Your task to perform on an android device: Open notification settings Image 0: 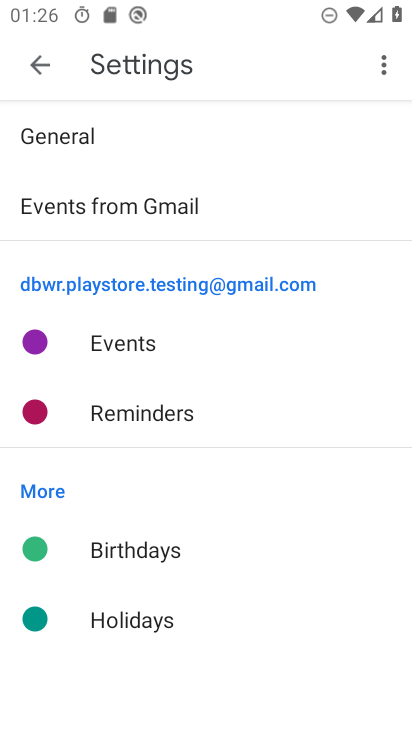
Step 0: press home button
Your task to perform on an android device: Open notification settings Image 1: 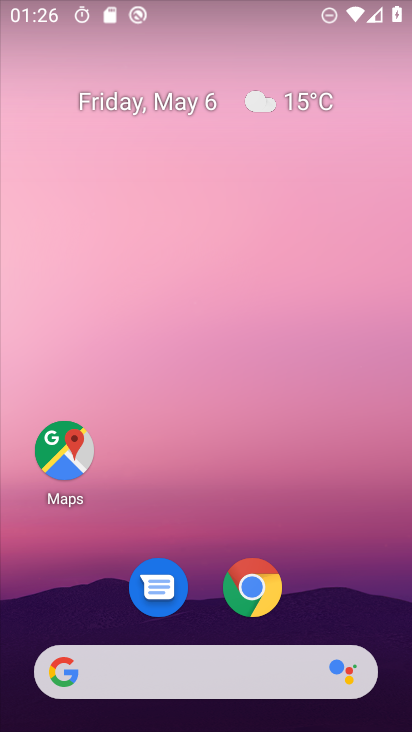
Step 1: drag from (378, 594) to (369, 337)
Your task to perform on an android device: Open notification settings Image 2: 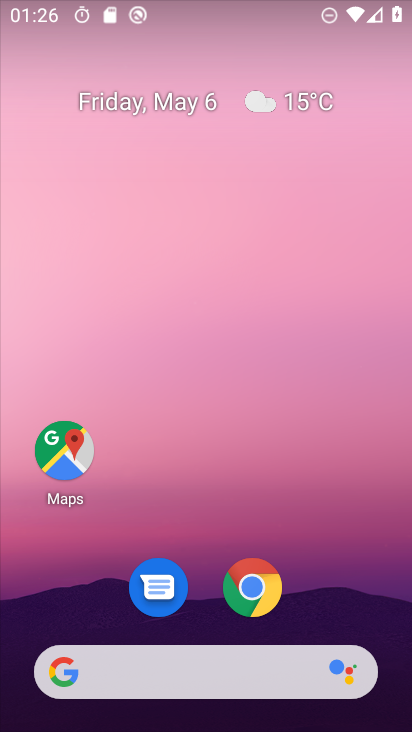
Step 2: drag from (386, 611) to (400, 362)
Your task to perform on an android device: Open notification settings Image 3: 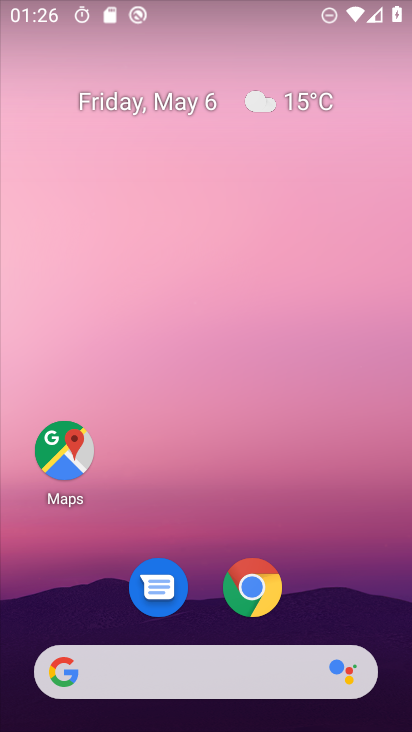
Step 3: drag from (373, 626) to (316, 383)
Your task to perform on an android device: Open notification settings Image 4: 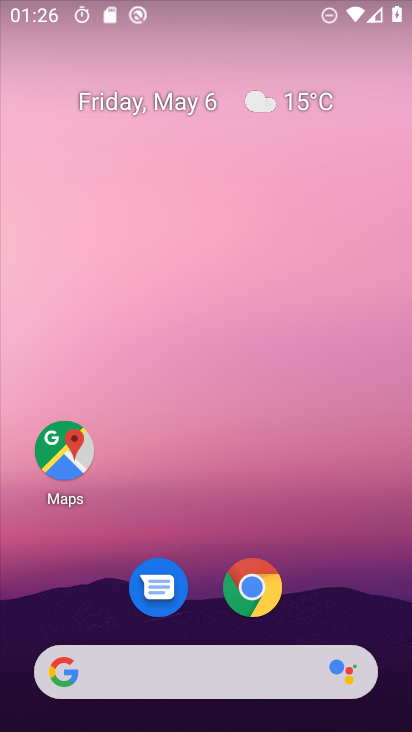
Step 4: drag from (386, 667) to (348, 213)
Your task to perform on an android device: Open notification settings Image 5: 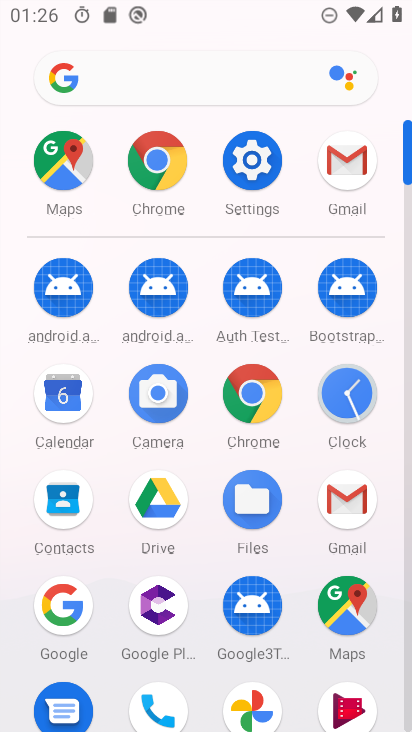
Step 5: click (243, 175)
Your task to perform on an android device: Open notification settings Image 6: 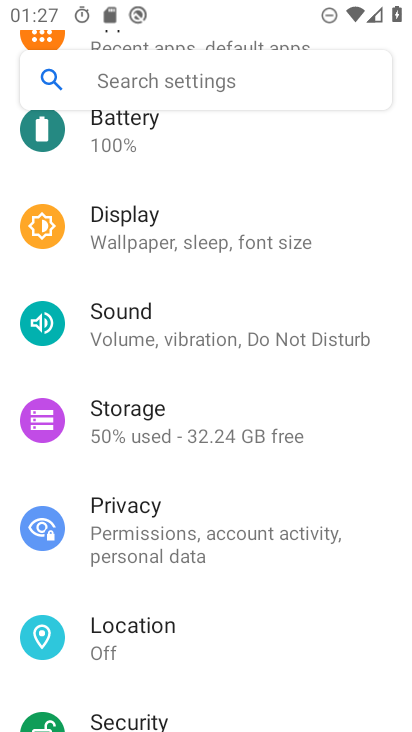
Step 6: drag from (260, 240) to (273, 546)
Your task to perform on an android device: Open notification settings Image 7: 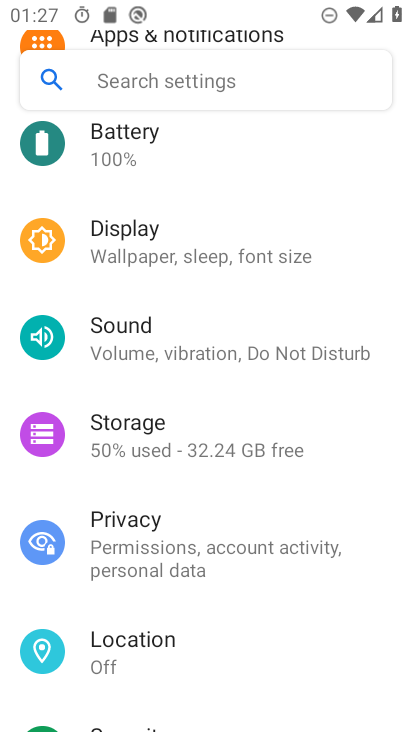
Step 7: drag from (270, 155) to (291, 611)
Your task to perform on an android device: Open notification settings Image 8: 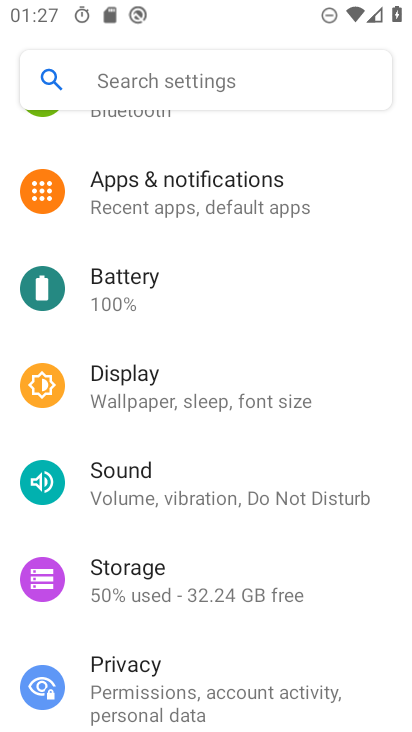
Step 8: click (230, 192)
Your task to perform on an android device: Open notification settings Image 9: 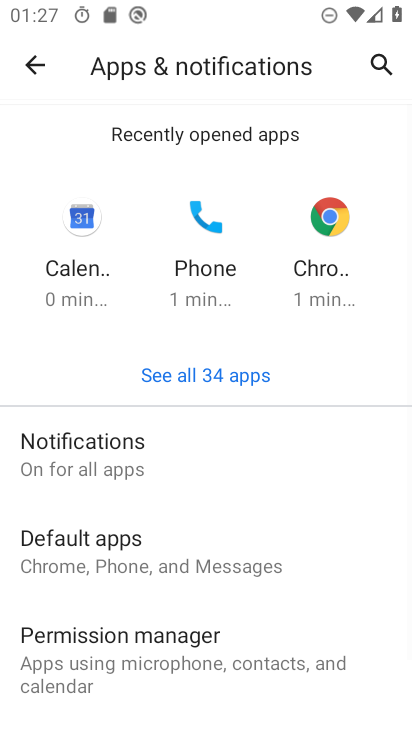
Step 9: click (98, 455)
Your task to perform on an android device: Open notification settings Image 10: 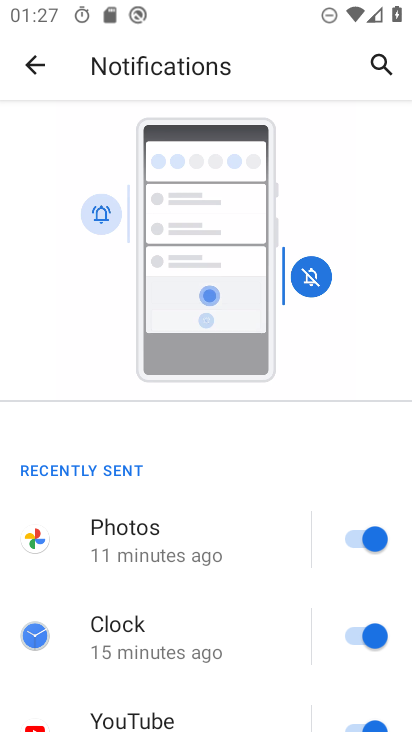
Step 10: task complete